Your task to perform on an android device: check storage Image 0: 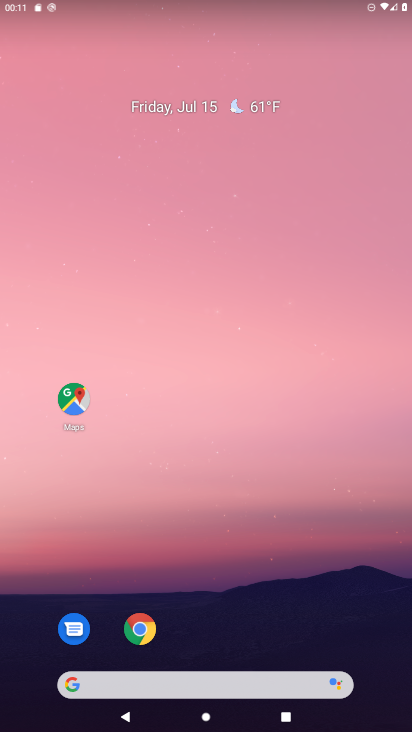
Step 0: drag from (223, 13) to (236, 627)
Your task to perform on an android device: check storage Image 1: 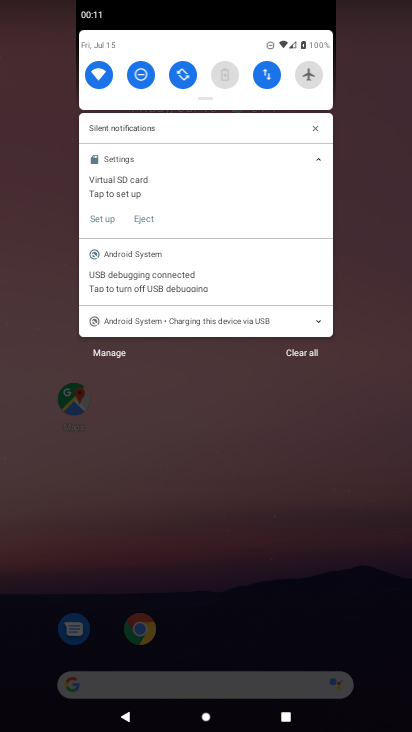
Step 1: click (229, 76)
Your task to perform on an android device: check storage Image 2: 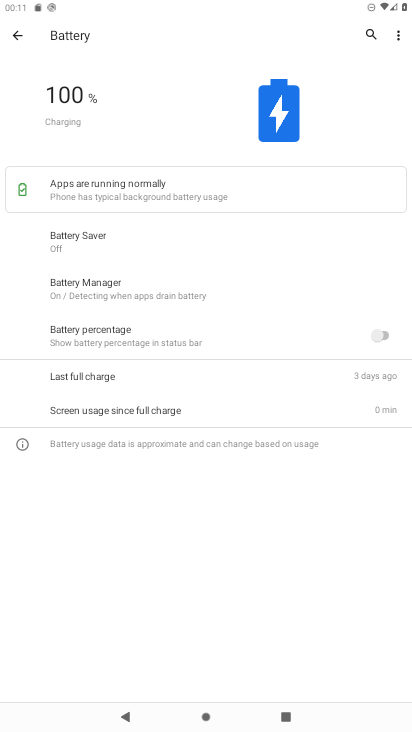
Step 2: task complete